Your task to perform on an android device: open app "Pandora - Music & Podcasts" Image 0: 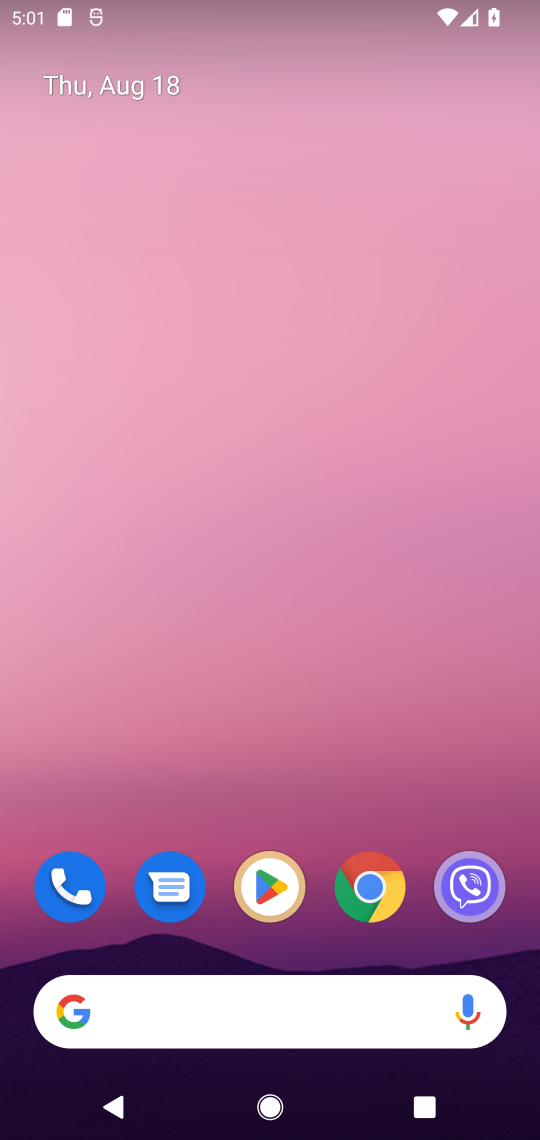
Step 0: click (277, 886)
Your task to perform on an android device: open app "Pandora - Music & Podcasts" Image 1: 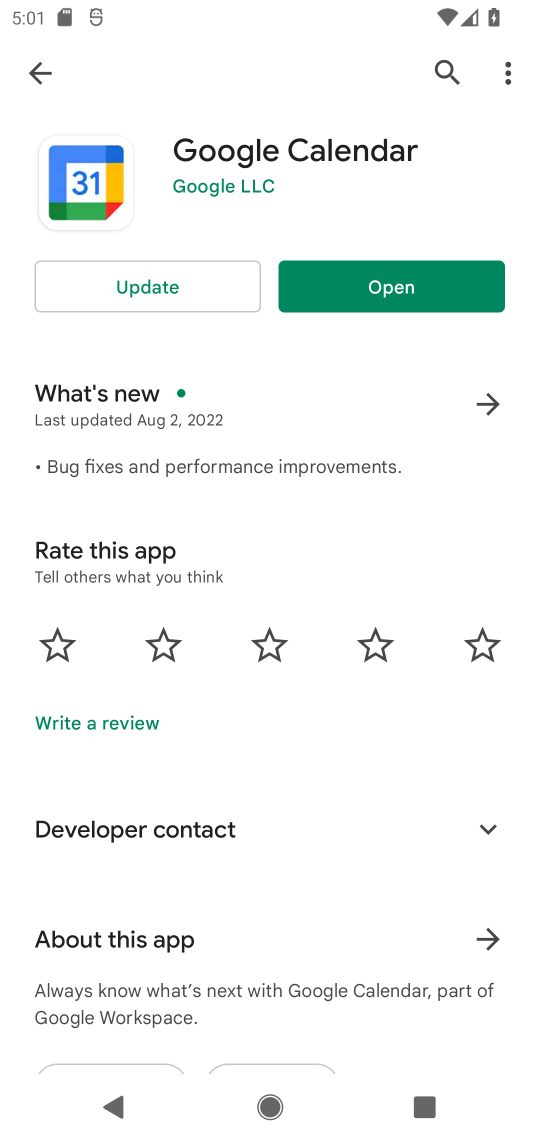
Step 1: click (429, 67)
Your task to perform on an android device: open app "Pandora - Music & Podcasts" Image 2: 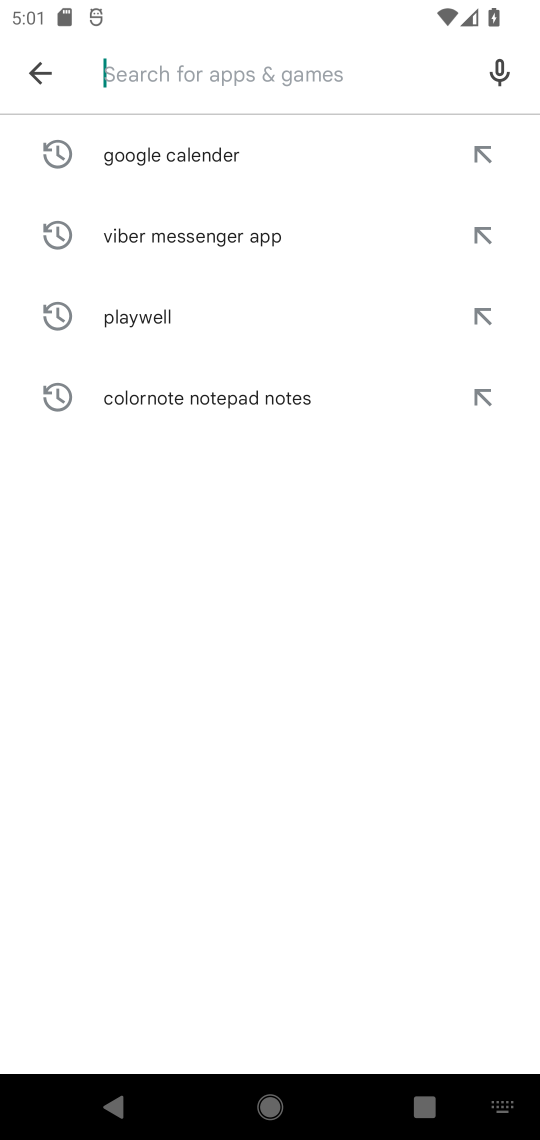
Step 2: type "Pandora - Music & Podcasts"
Your task to perform on an android device: open app "Pandora - Music & Podcasts" Image 3: 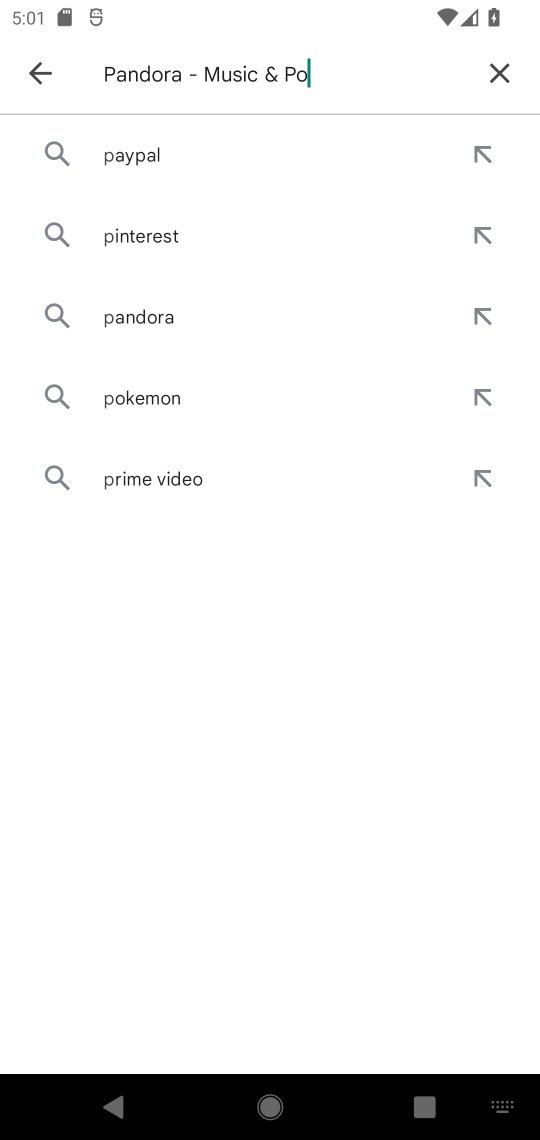
Step 3: type ""
Your task to perform on an android device: open app "Pandora - Music & Podcasts" Image 4: 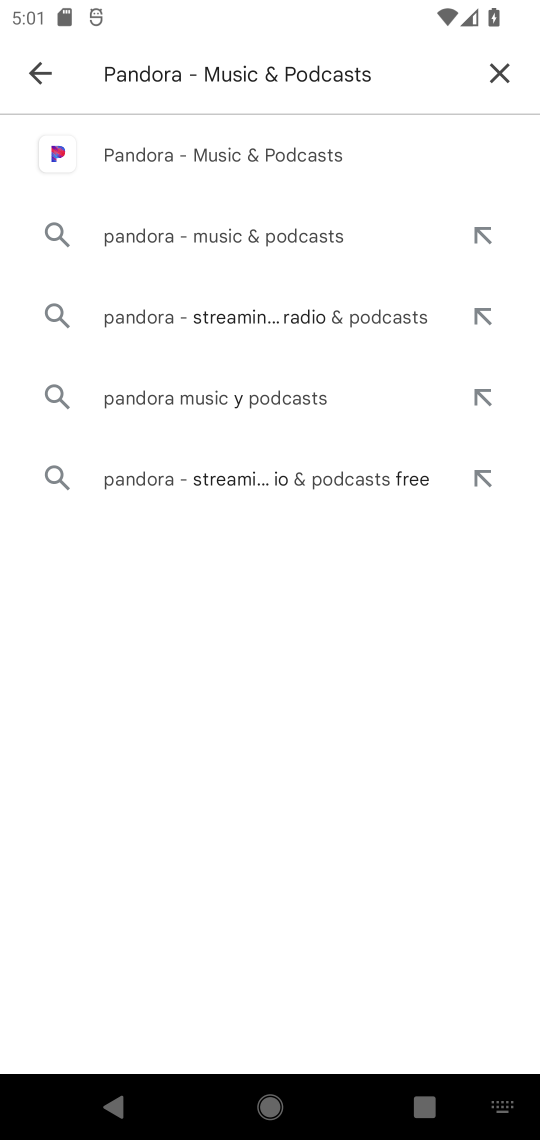
Step 4: click (196, 154)
Your task to perform on an android device: open app "Pandora - Music & Podcasts" Image 5: 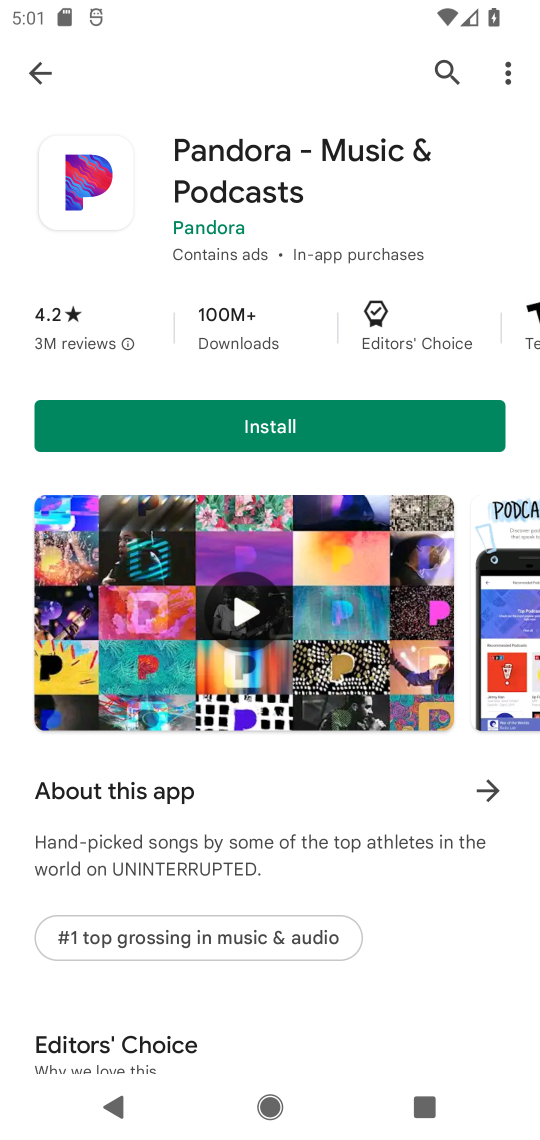
Step 5: task complete